Your task to perform on an android device: all mails in gmail Image 0: 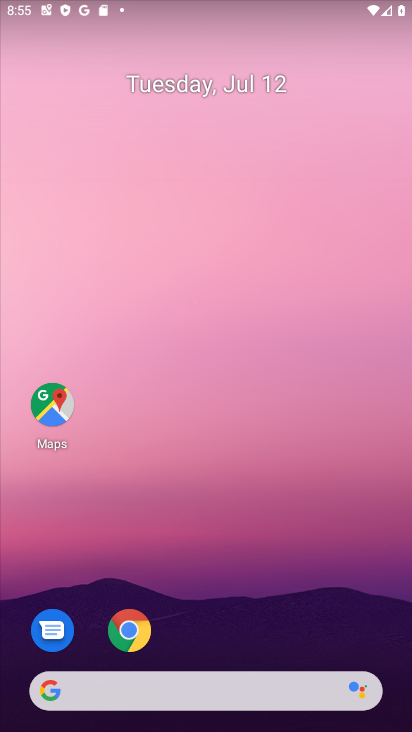
Step 0: drag from (195, 624) to (225, 150)
Your task to perform on an android device: all mails in gmail Image 1: 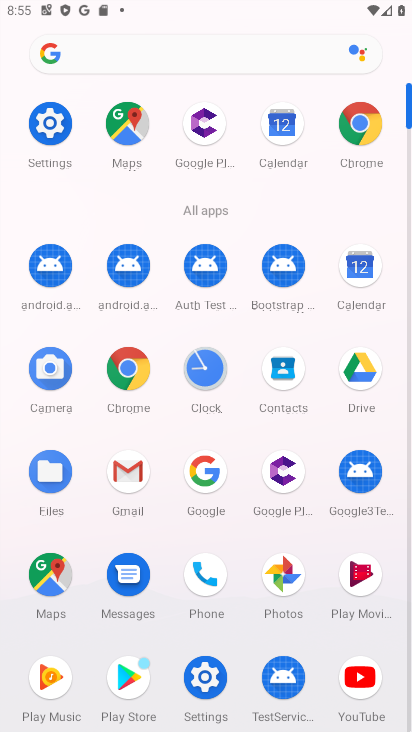
Step 1: click (129, 481)
Your task to perform on an android device: all mails in gmail Image 2: 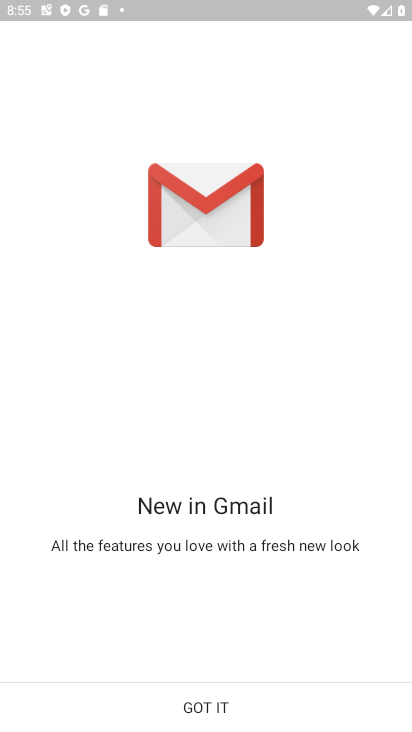
Step 2: click (188, 716)
Your task to perform on an android device: all mails in gmail Image 3: 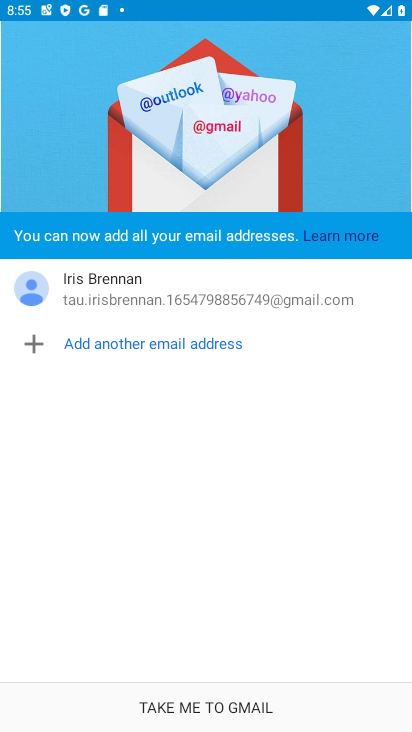
Step 3: click (187, 716)
Your task to perform on an android device: all mails in gmail Image 4: 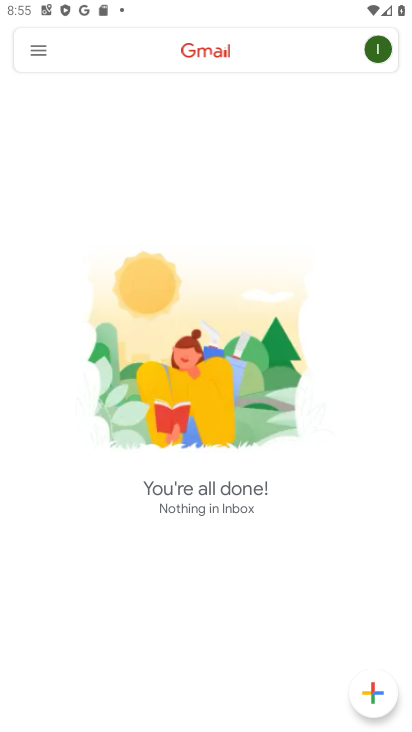
Step 4: click (35, 48)
Your task to perform on an android device: all mails in gmail Image 5: 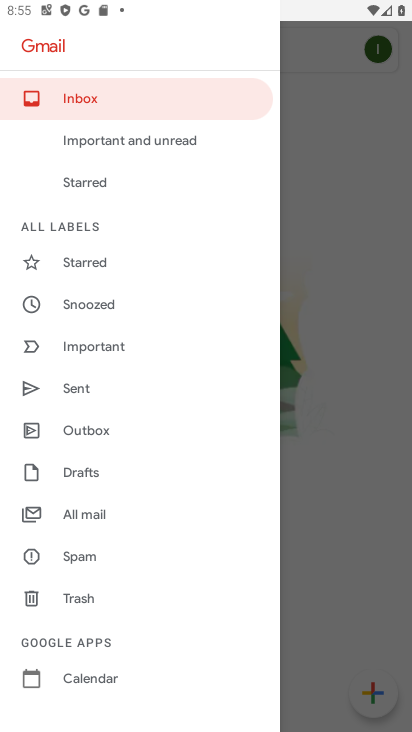
Step 5: click (78, 507)
Your task to perform on an android device: all mails in gmail Image 6: 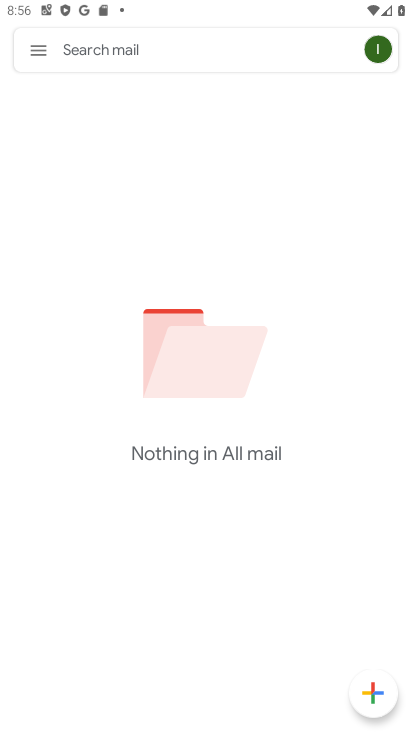
Step 6: task complete